Your task to perform on an android device: open a bookmark in the chrome app Image 0: 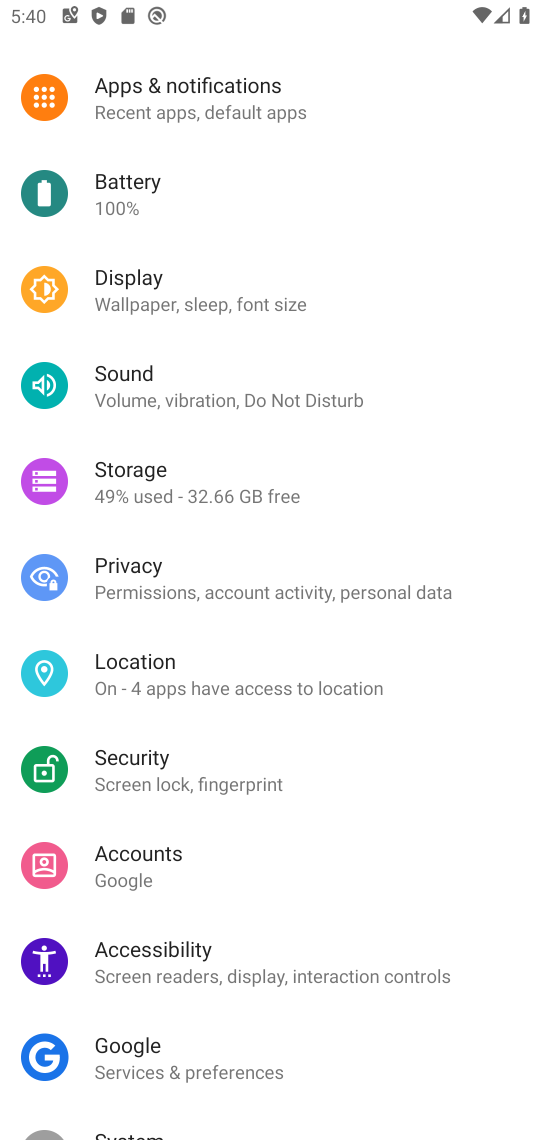
Step 0: press home button
Your task to perform on an android device: open a bookmark in the chrome app Image 1: 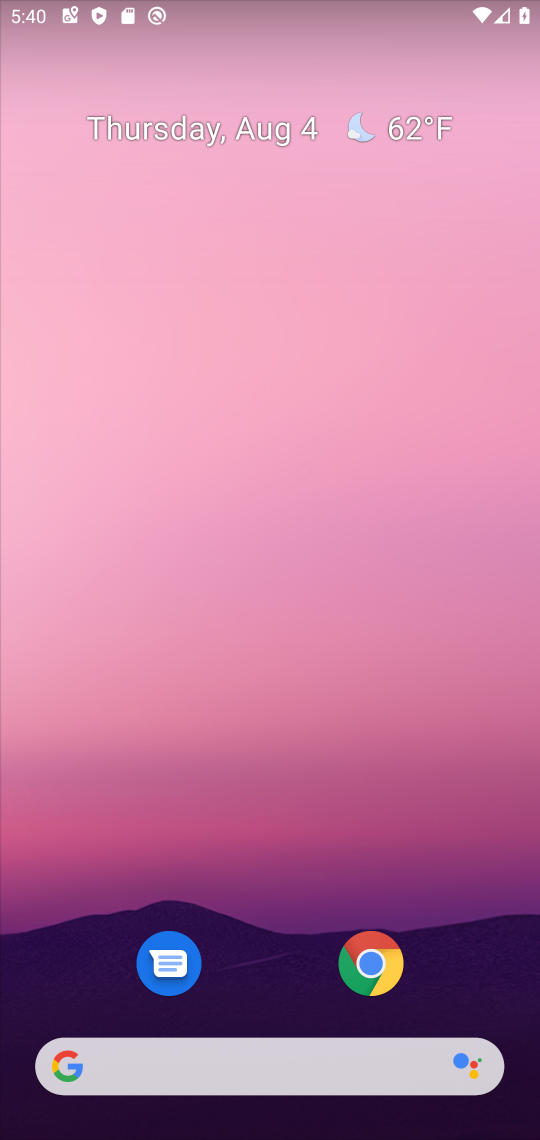
Step 1: click (369, 952)
Your task to perform on an android device: open a bookmark in the chrome app Image 2: 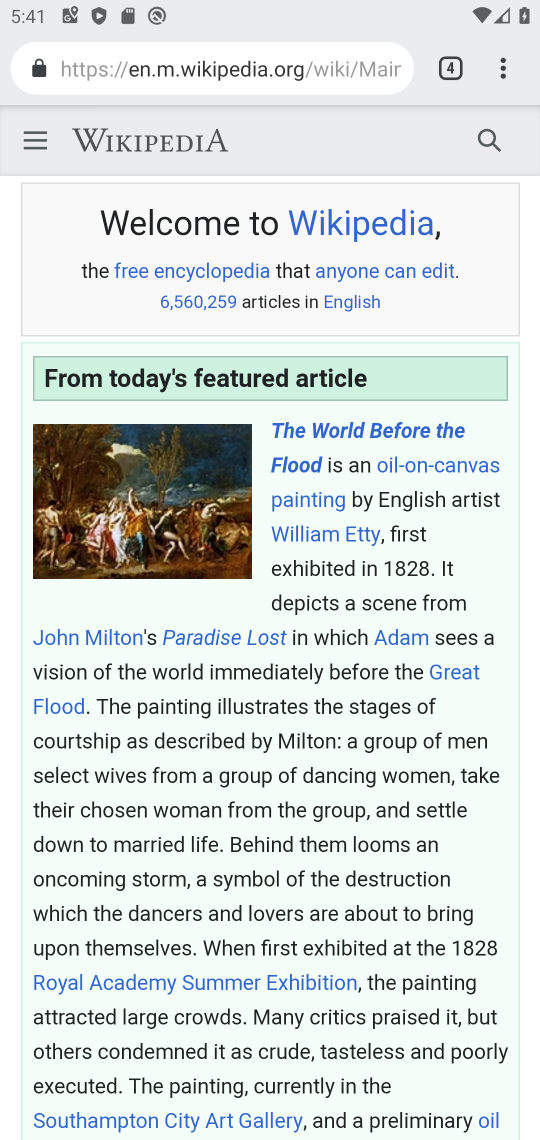
Step 2: click (502, 62)
Your task to perform on an android device: open a bookmark in the chrome app Image 3: 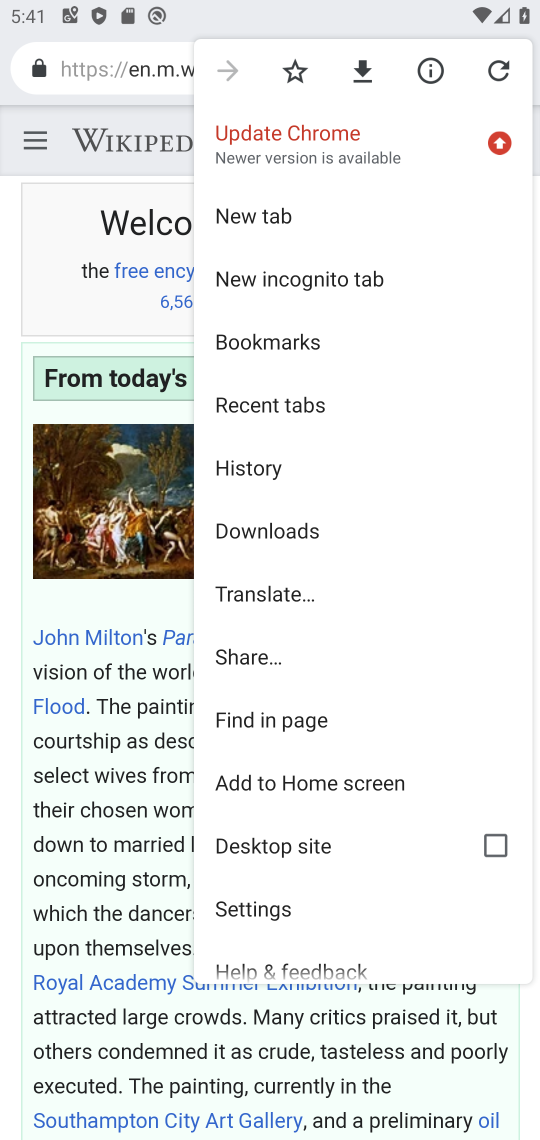
Step 3: click (280, 339)
Your task to perform on an android device: open a bookmark in the chrome app Image 4: 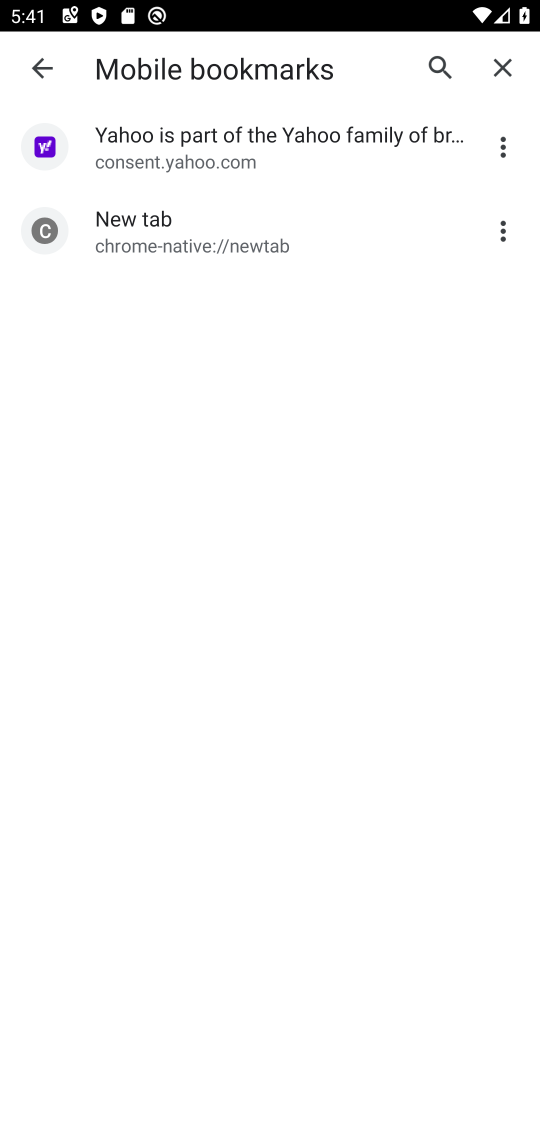
Step 4: task complete